Your task to perform on an android device: turn on location history Image 0: 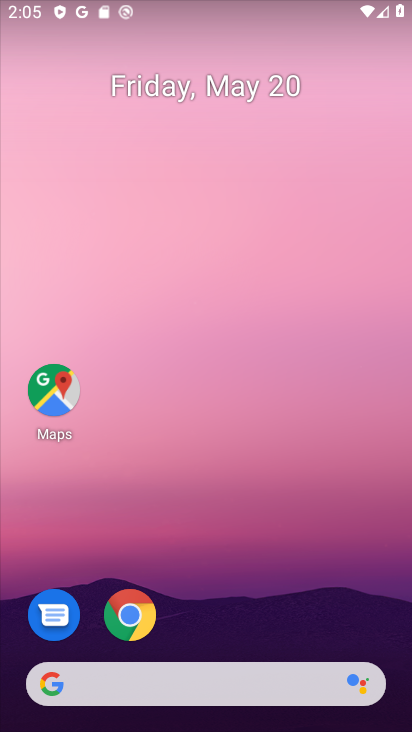
Step 0: drag from (296, 616) to (260, 76)
Your task to perform on an android device: turn on location history Image 1: 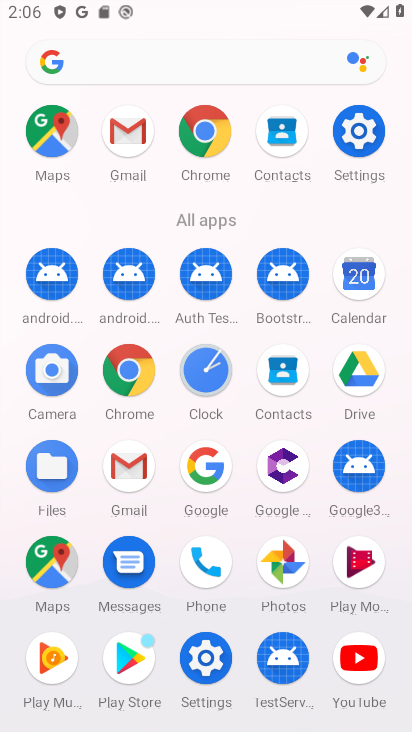
Step 1: click (33, 144)
Your task to perform on an android device: turn on location history Image 2: 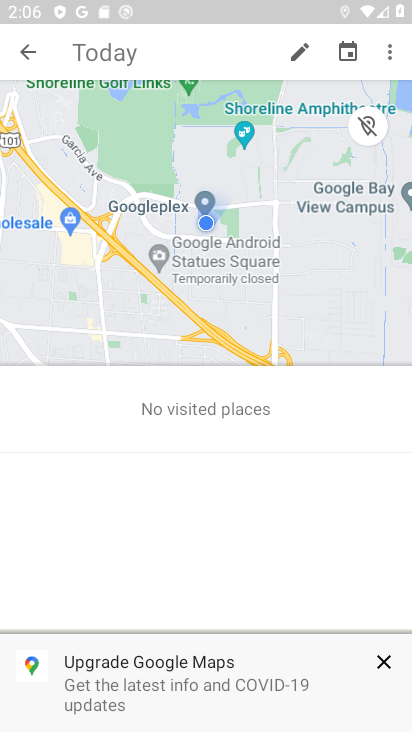
Step 2: click (387, 61)
Your task to perform on an android device: turn on location history Image 3: 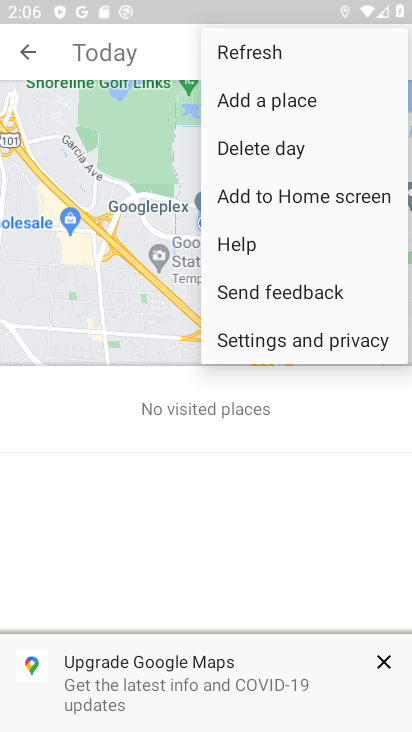
Step 3: click (355, 346)
Your task to perform on an android device: turn on location history Image 4: 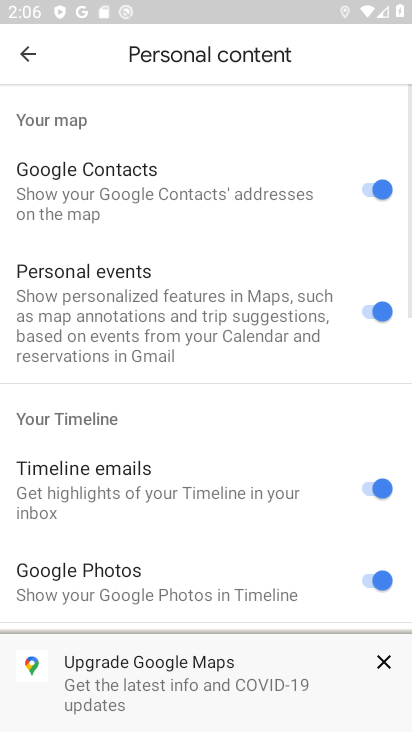
Step 4: drag from (288, 555) to (250, 208)
Your task to perform on an android device: turn on location history Image 5: 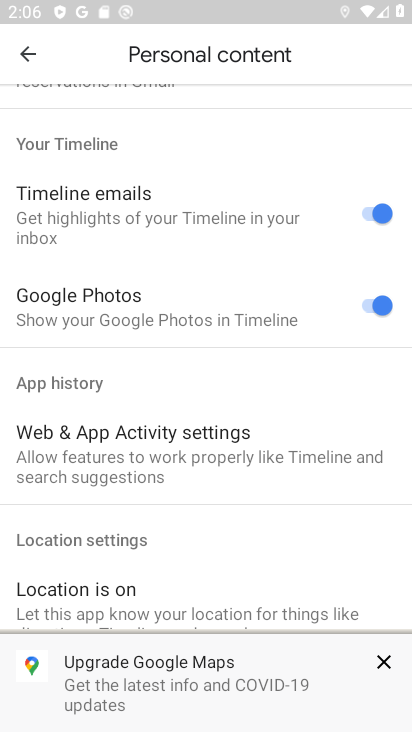
Step 5: drag from (257, 550) to (237, 237)
Your task to perform on an android device: turn on location history Image 6: 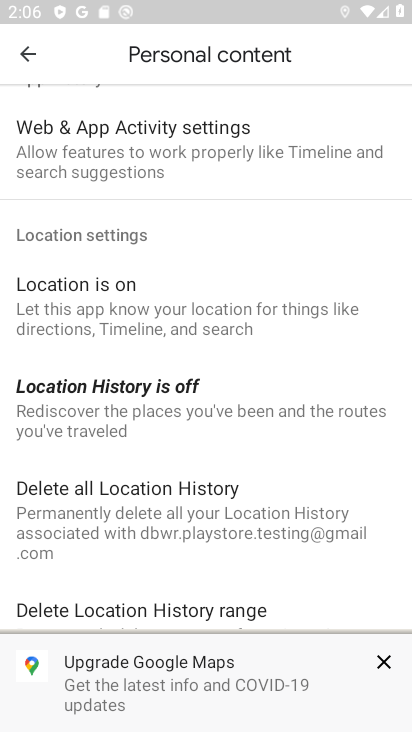
Step 6: click (267, 412)
Your task to perform on an android device: turn on location history Image 7: 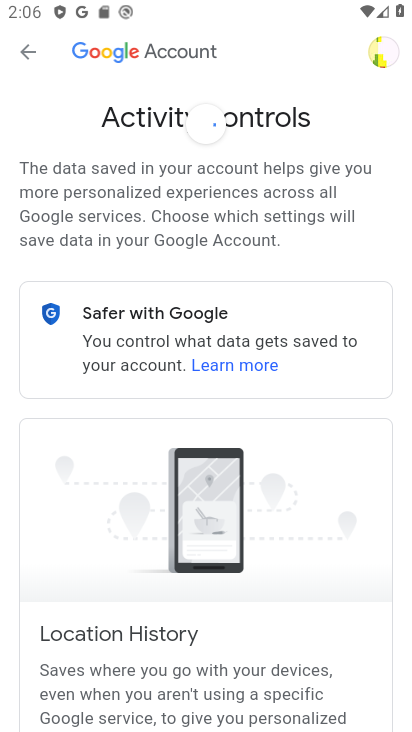
Step 7: drag from (321, 535) to (321, 127)
Your task to perform on an android device: turn on location history Image 8: 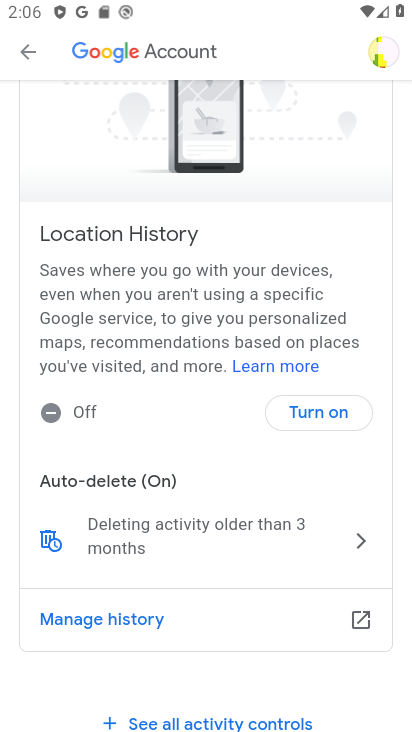
Step 8: click (319, 421)
Your task to perform on an android device: turn on location history Image 9: 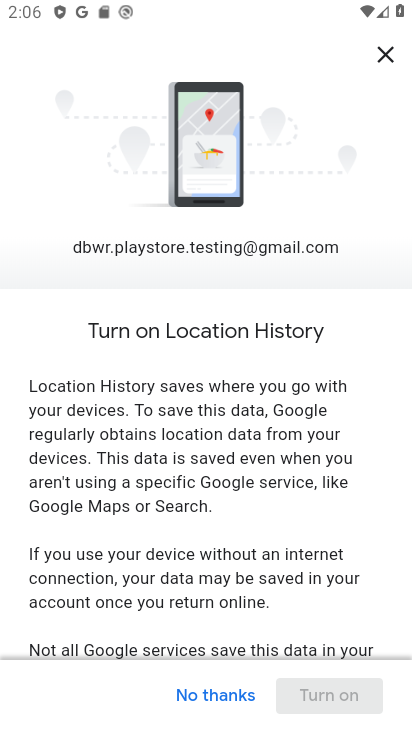
Step 9: drag from (329, 602) to (322, 191)
Your task to perform on an android device: turn on location history Image 10: 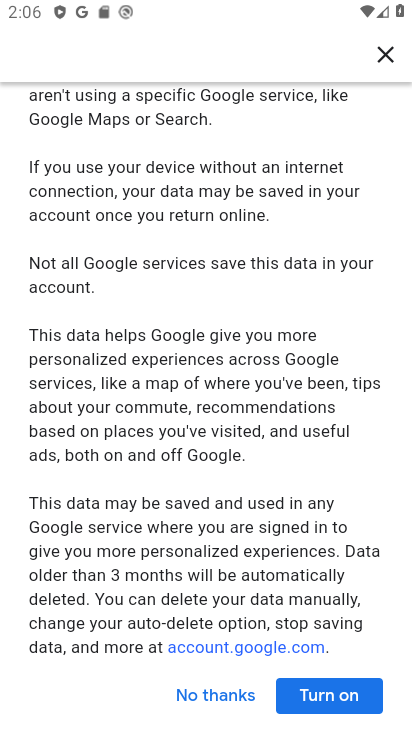
Step 10: drag from (353, 553) to (298, 168)
Your task to perform on an android device: turn on location history Image 11: 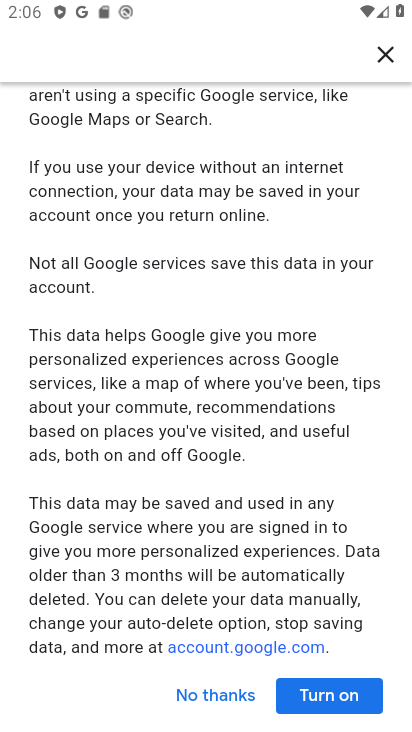
Step 11: click (349, 696)
Your task to perform on an android device: turn on location history Image 12: 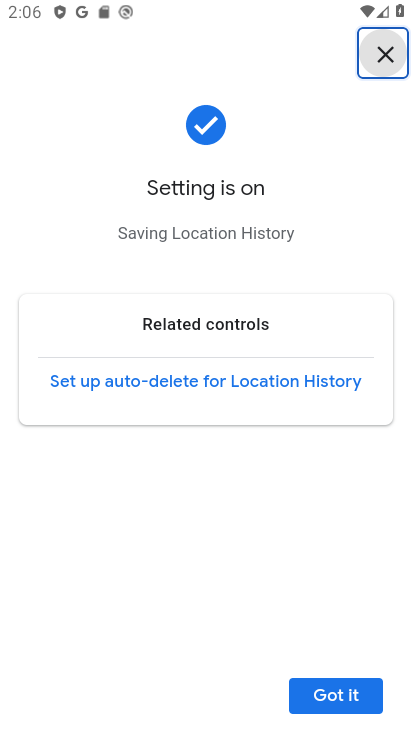
Step 12: click (349, 696)
Your task to perform on an android device: turn on location history Image 13: 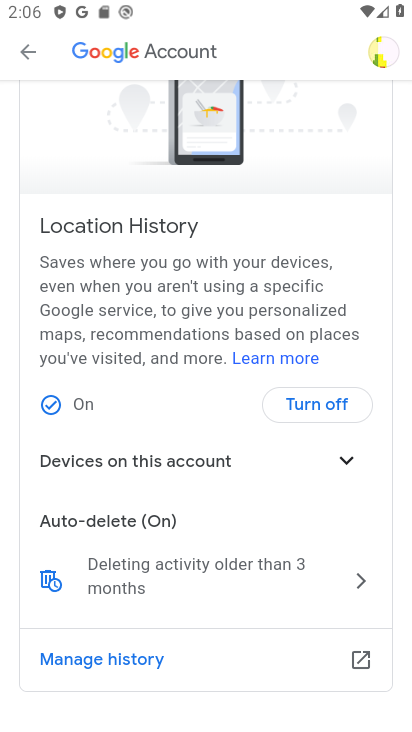
Step 13: task complete